Your task to perform on an android device: set the stopwatch Image 0: 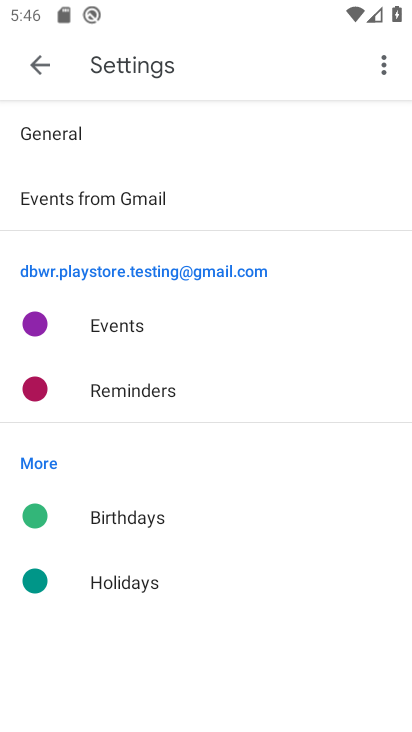
Step 0: press home button
Your task to perform on an android device: set the stopwatch Image 1: 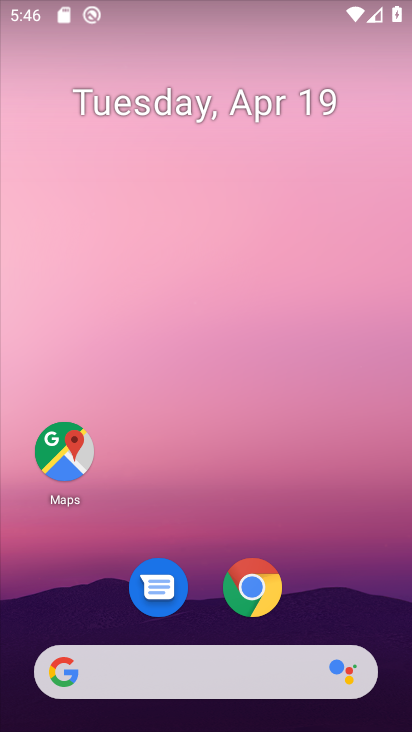
Step 1: drag from (313, 485) to (350, 64)
Your task to perform on an android device: set the stopwatch Image 2: 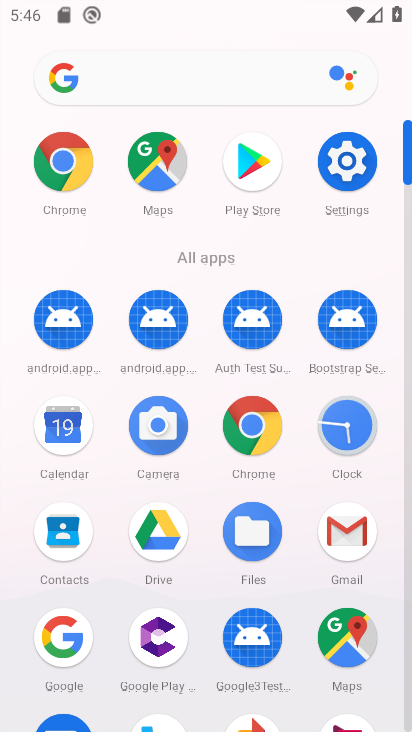
Step 2: drag from (117, 503) to (173, 275)
Your task to perform on an android device: set the stopwatch Image 3: 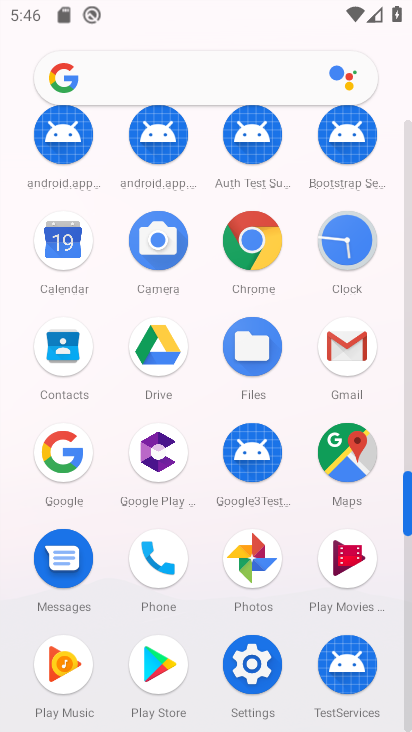
Step 3: drag from (257, 444) to (307, 195)
Your task to perform on an android device: set the stopwatch Image 4: 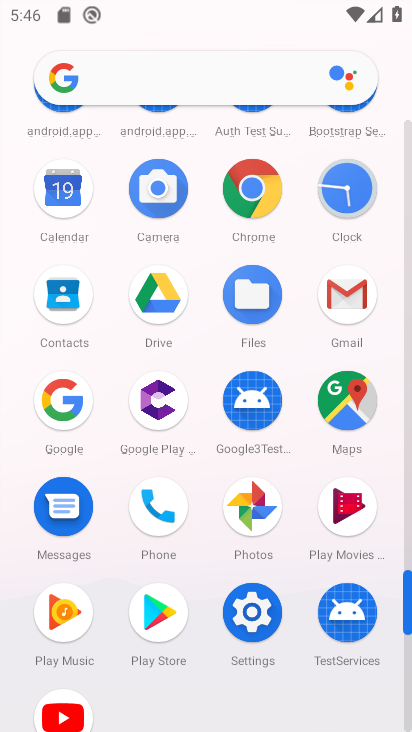
Step 4: click (335, 195)
Your task to perform on an android device: set the stopwatch Image 5: 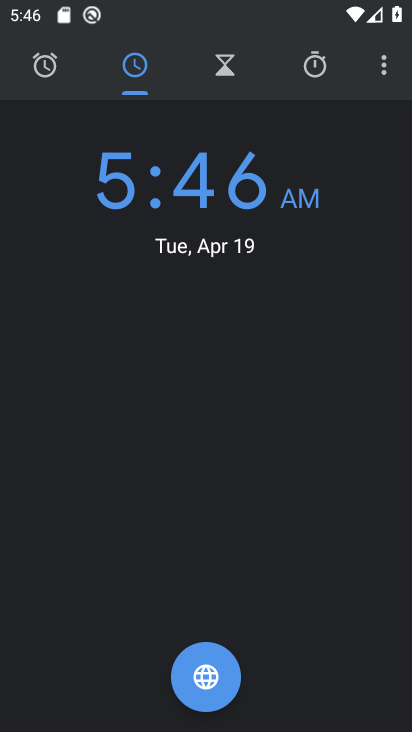
Step 5: click (318, 57)
Your task to perform on an android device: set the stopwatch Image 6: 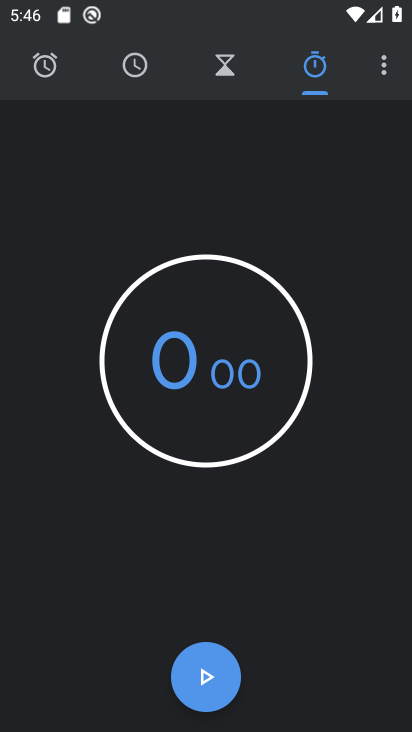
Step 6: click (188, 679)
Your task to perform on an android device: set the stopwatch Image 7: 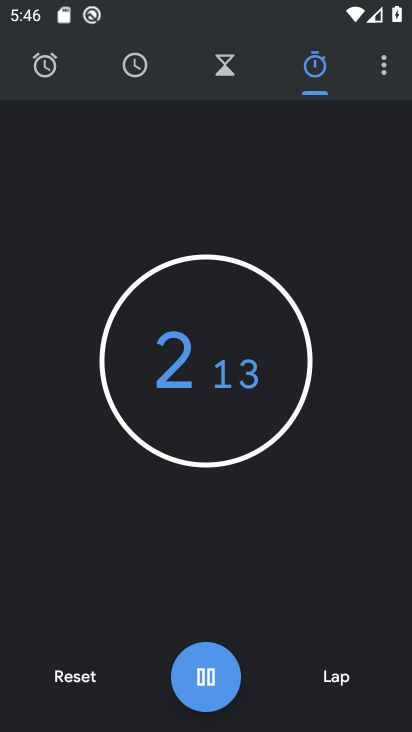
Step 7: task complete